Your task to perform on an android device: turn off picture-in-picture Image 0: 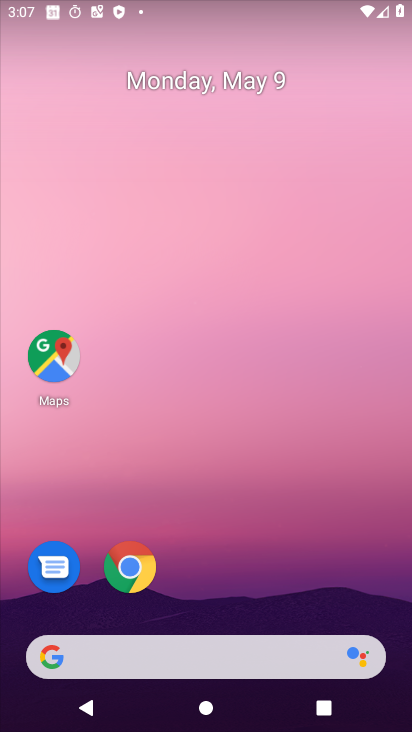
Step 0: drag from (237, 582) to (229, 111)
Your task to perform on an android device: turn off picture-in-picture Image 1: 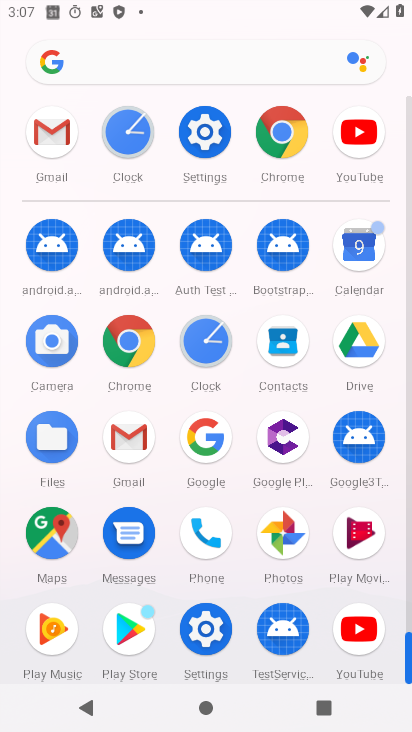
Step 1: click (200, 119)
Your task to perform on an android device: turn off picture-in-picture Image 2: 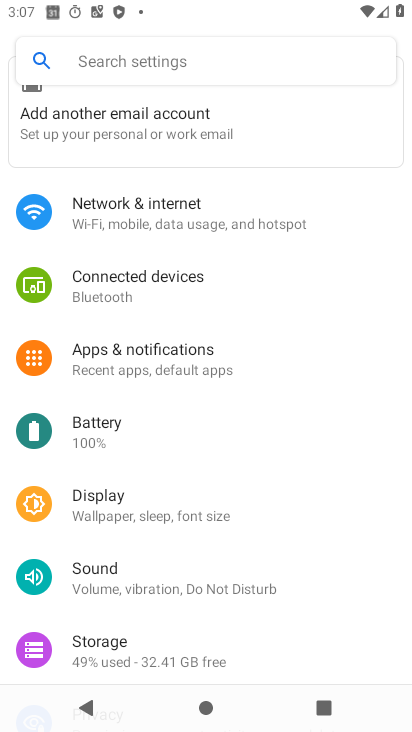
Step 2: click (153, 372)
Your task to perform on an android device: turn off picture-in-picture Image 3: 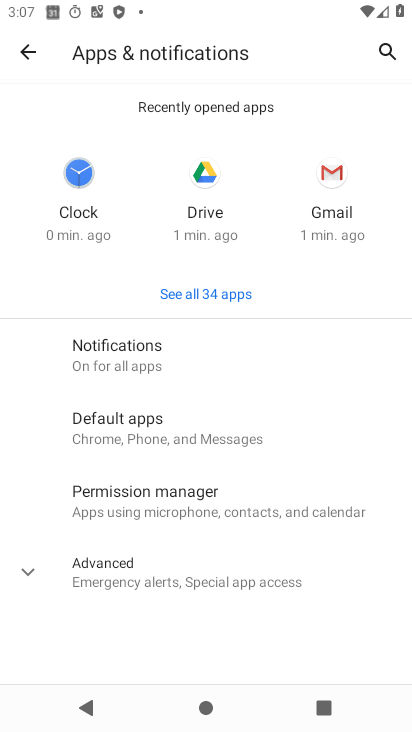
Step 3: click (124, 572)
Your task to perform on an android device: turn off picture-in-picture Image 4: 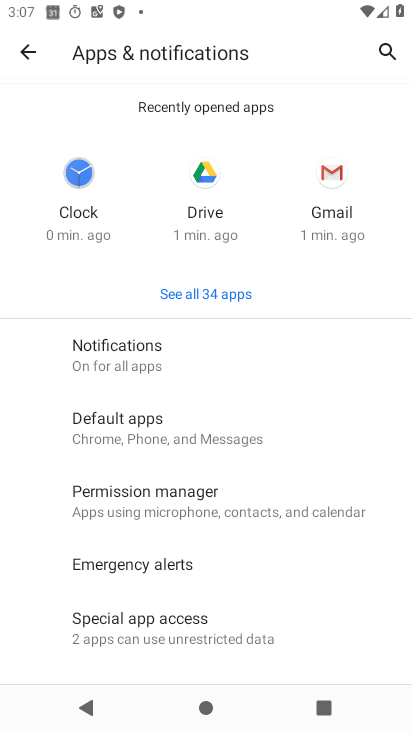
Step 4: click (167, 621)
Your task to perform on an android device: turn off picture-in-picture Image 5: 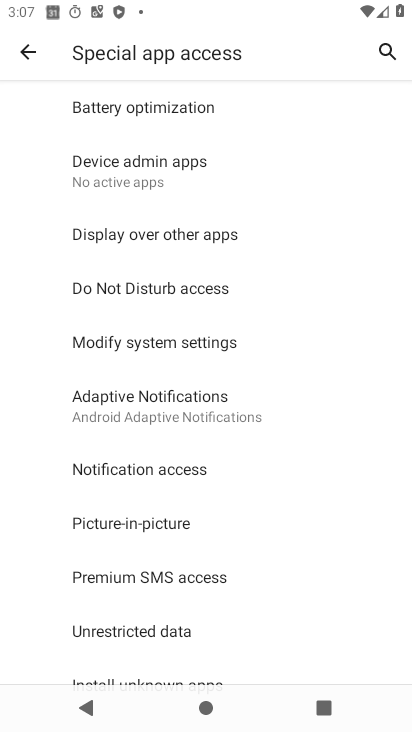
Step 5: click (153, 530)
Your task to perform on an android device: turn off picture-in-picture Image 6: 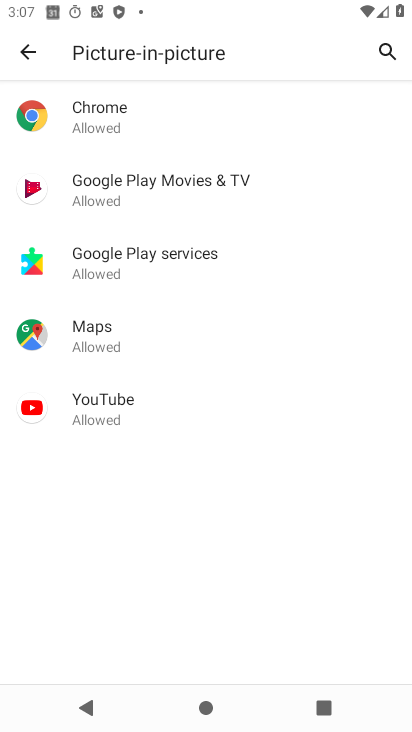
Step 6: click (96, 127)
Your task to perform on an android device: turn off picture-in-picture Image 7: 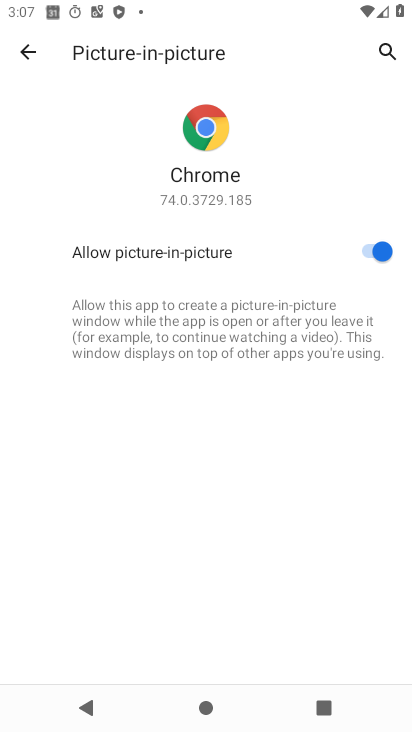
Step 7: click (380, 250)
Your task to perform on an android device: turn off picture-in-picture Image 8: 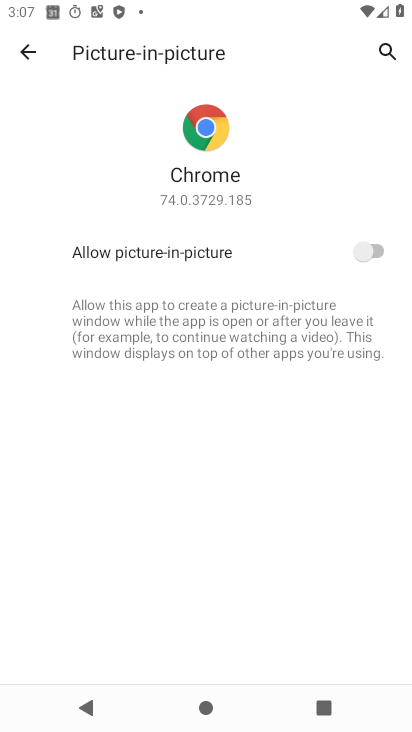
Step 8: click (32, 44)
Your task to perform on an android device: turn off picture-in-picture Image 9: 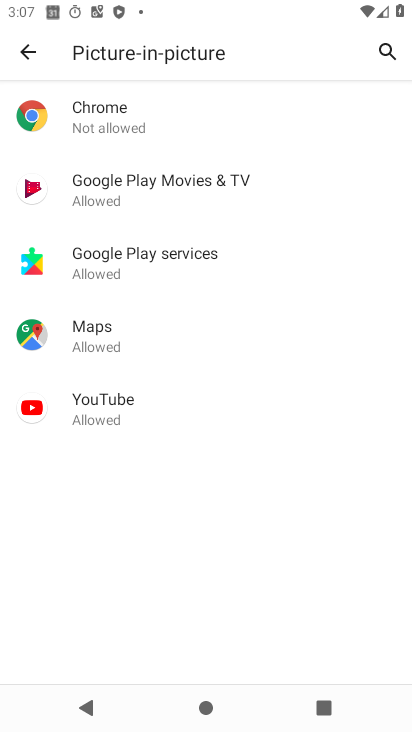
Step 9: click (148, 186)
Your task to perform on an android device: turn off picture-in-picture Image 10: 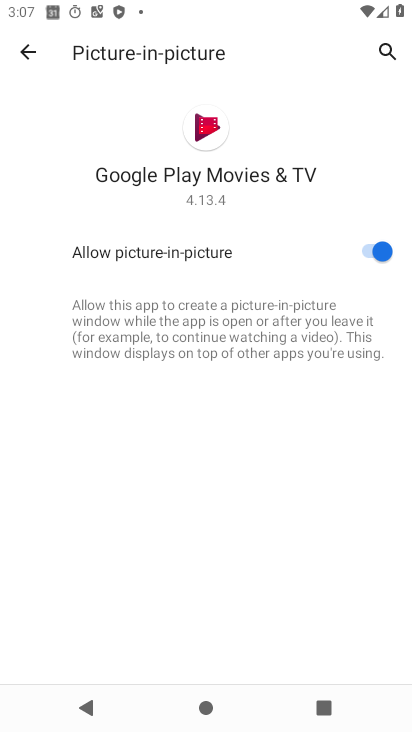
Step 10: click (373, 246)
Your task to perform on an android device: turn off picture-in-picture Image 11: 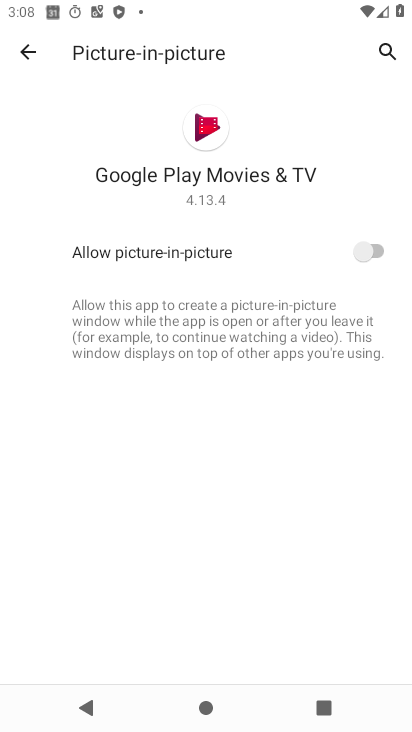
Step 11: click (22, 73)
Your task to perform on an android device: turn off picture-in-picture Image 12: 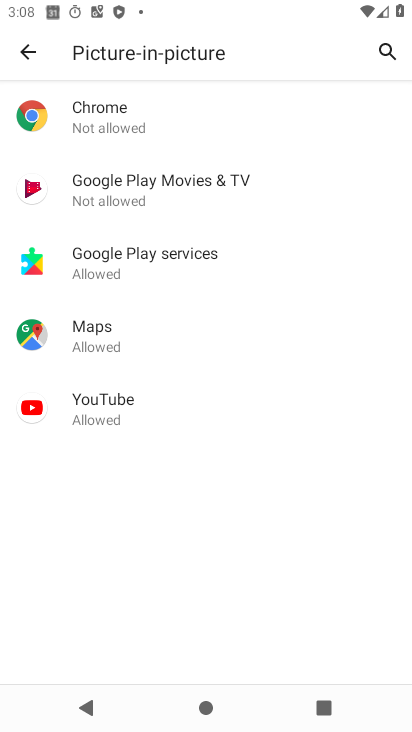
Step 12: click (131, 255)
Your task to perform on an android device: turn off picture-in-picture Image 13: 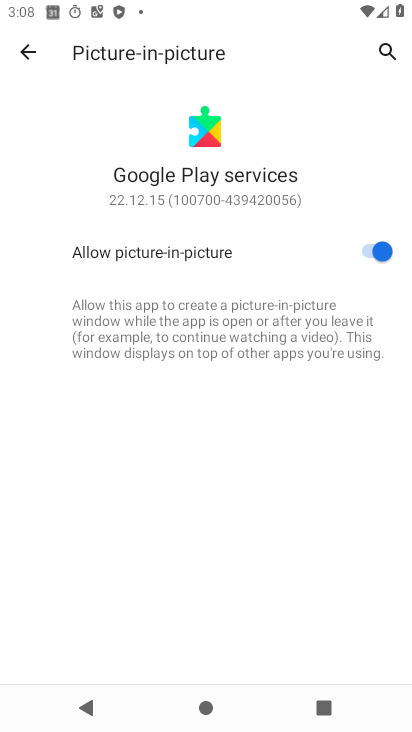
Step 13: click (368, 247)
Your task to perform on an android device: turn off picture-in-picture Image 14: 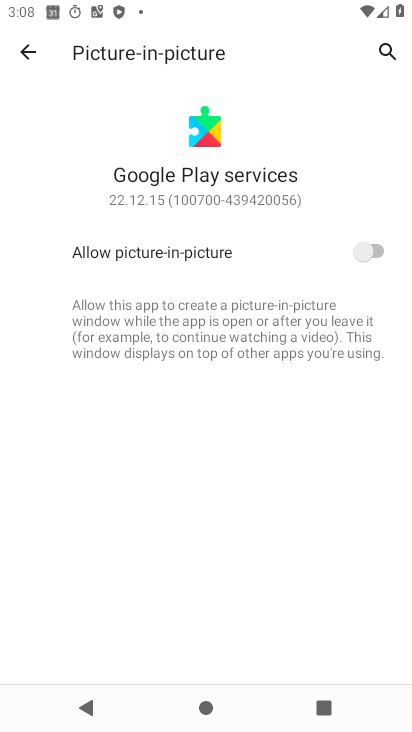
Step 14: click (29, 57)
Your task to perform on an android device: turn off picture-in-picture Image 15: 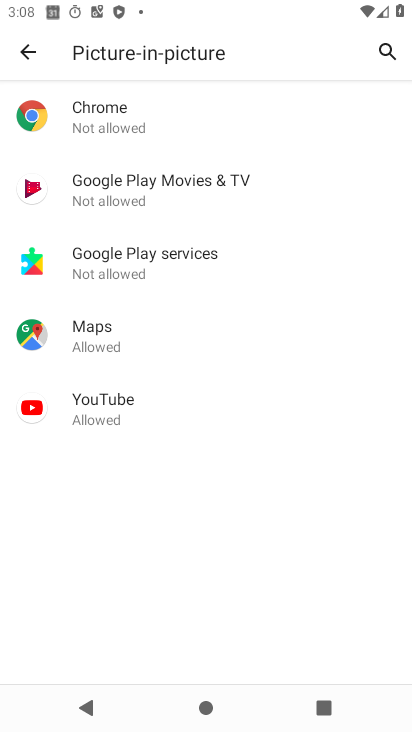
Step 15: click (108, 330)
Your task to perform on an android device: turn off picture-in-picture Image 16: 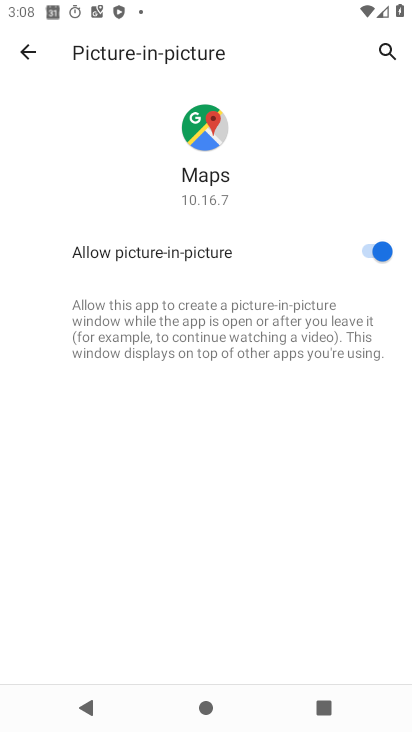
Step 16: click (370, 247)
Your task to perform on an android device: turn off picture-in-picture Image 17: 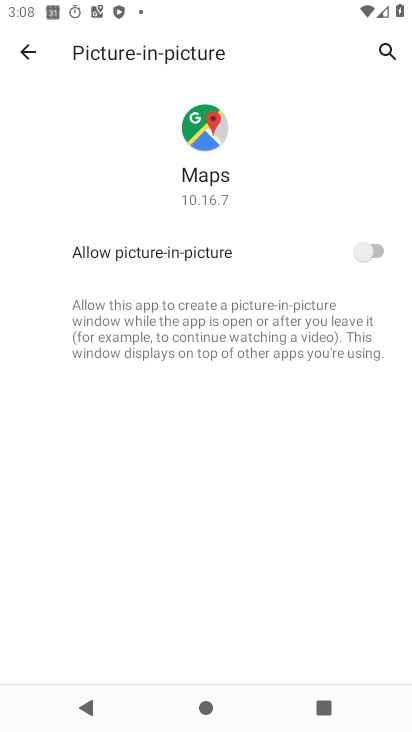
Step 17: click (15, 50)
Your task to perform on an android device: turn off picture-in-picture Image 18: 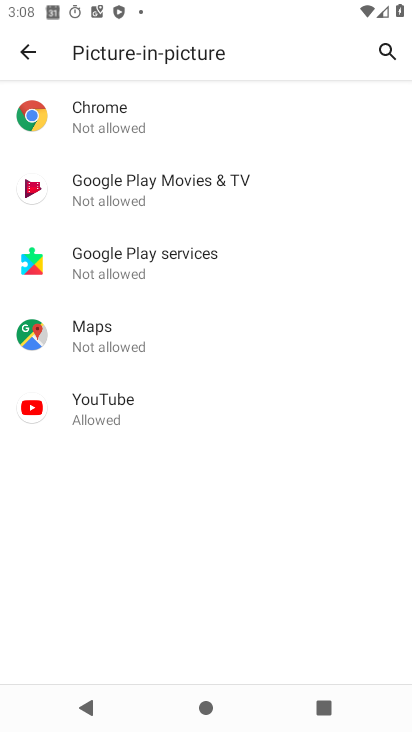
Step 18: click (116, 412)
Your task to perform on an android device: turn off picture-in-picture Image 19: 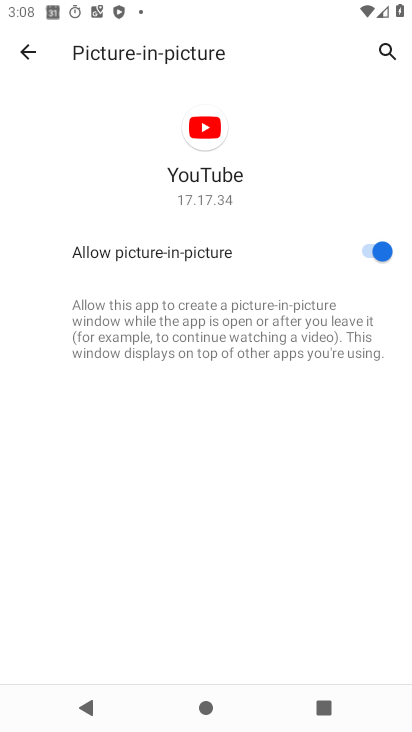
Step 19: click (370, 249)
Your task to perform on an android device: turn off picture-in-picture Image 20: 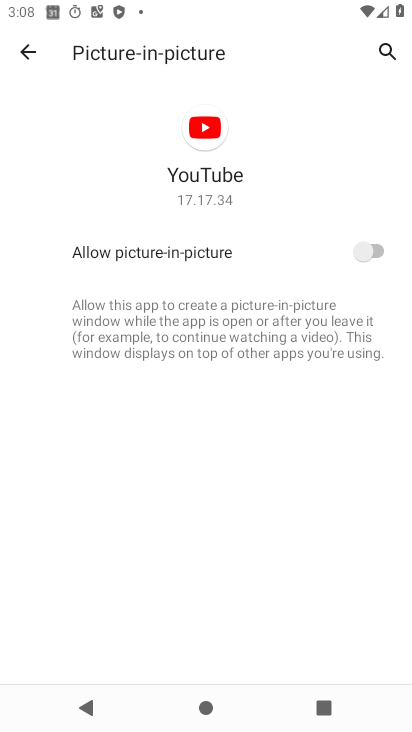
Step 20: click (33, 54)
Your task to perform on an android device: turn off picture-in-picture Image 21: 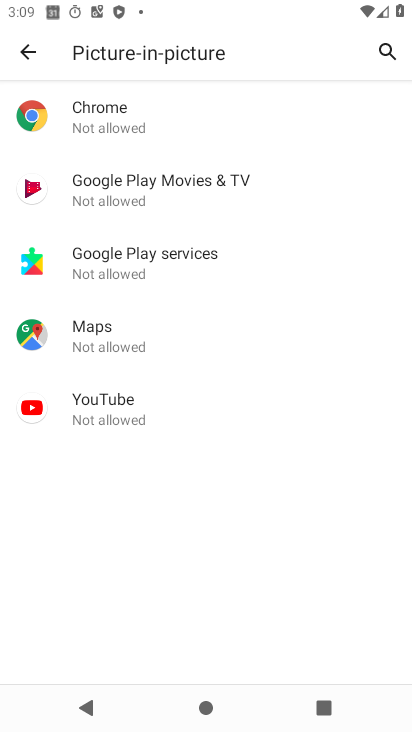
Step 21: task complete